Your task to perform on an android device: When is my next meeting? Image 0: 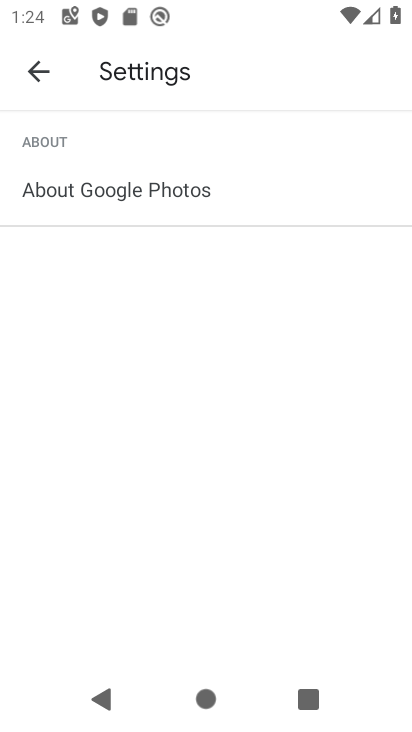
Step 0: press home button
Your task to perform on an android device: When is my next meeting? Image 1: 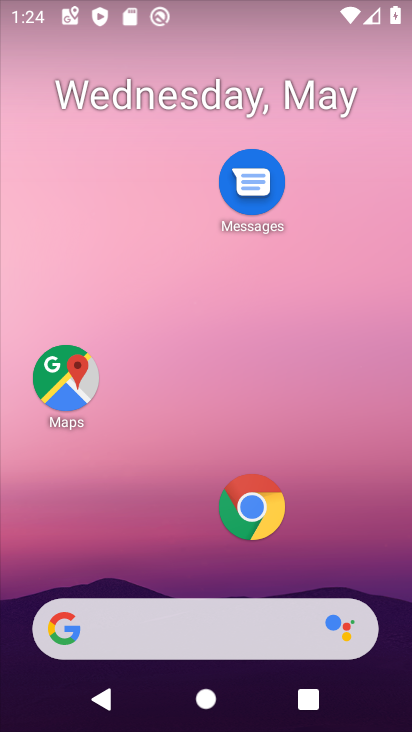
Step 1: drag from (202, 499) to (178, 184)
Your task to perform on an android device: When is my next meeting? Image 2: 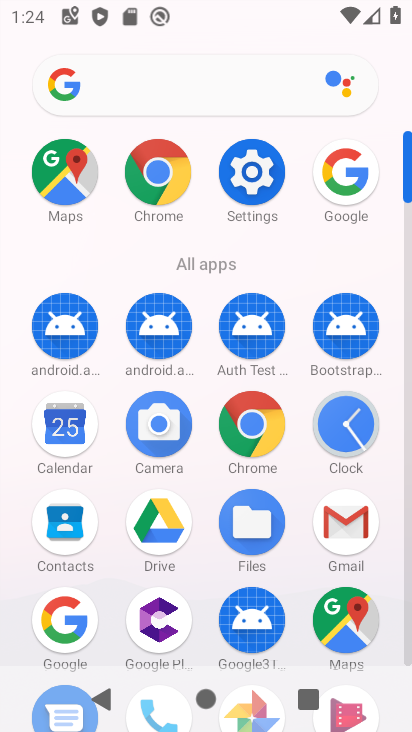
Step 2: click (81, 436)
Your task to perform on an android device: When is my next meeting? Image 3: 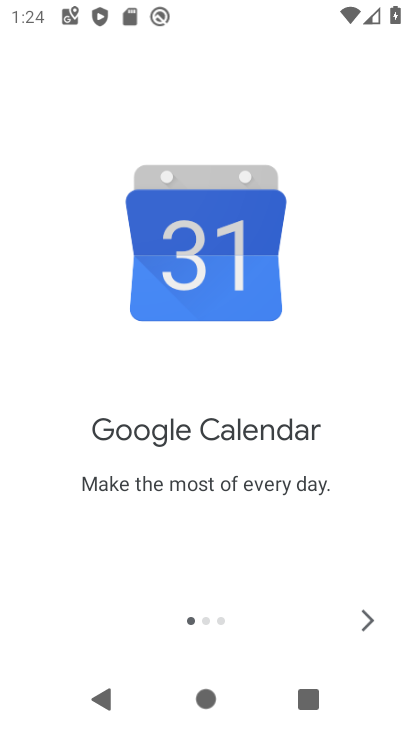
Step 3: click (353, 623)
Your task to perform on an android device: When is my next meeting? Image 4: 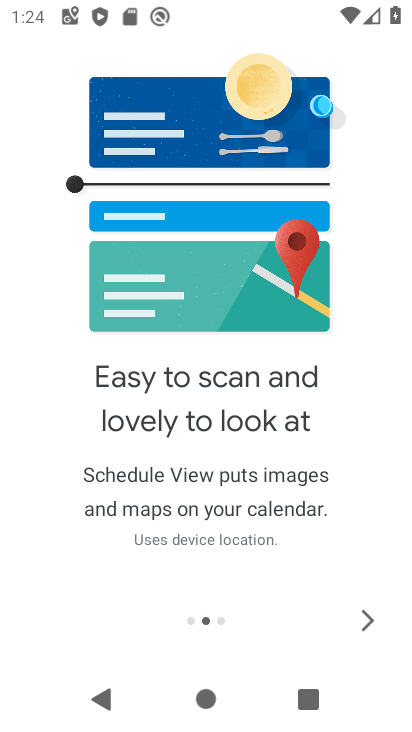
Step 4: click (353, 623)
Your task to perform on an android device: When is my next meeting? Image 5: 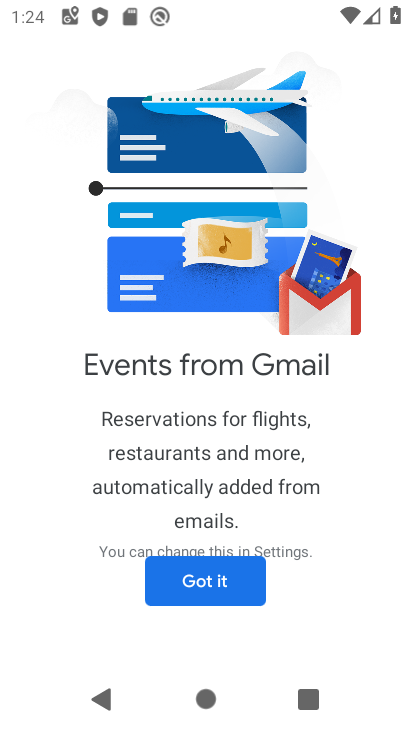
Step 5: click (242, 579)
Your task to perform on an android device: When is my next meeting? Image 6: 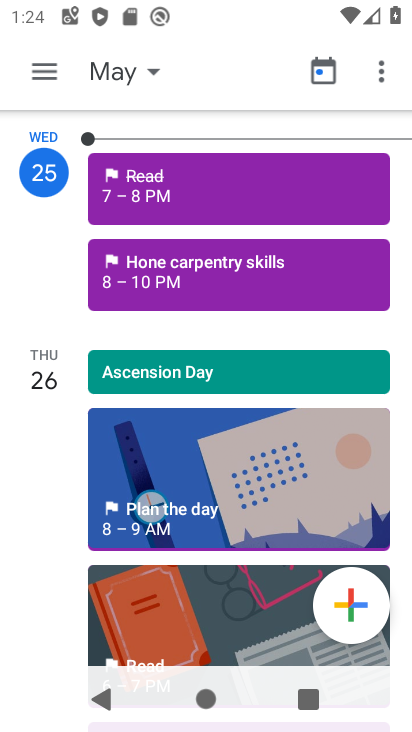
Step 6: click (259, 202)
Your task to perform on an android device: When is my next meeting? Image 7: 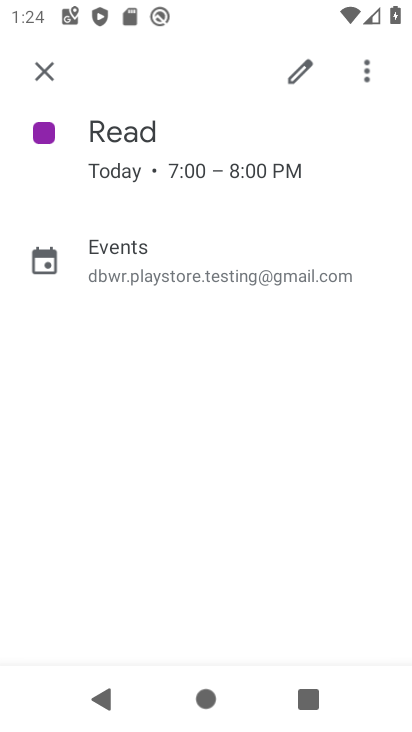
Step 7: task complete